Your task to perform on an android device: refresh tabs in the chrome app Image 0: 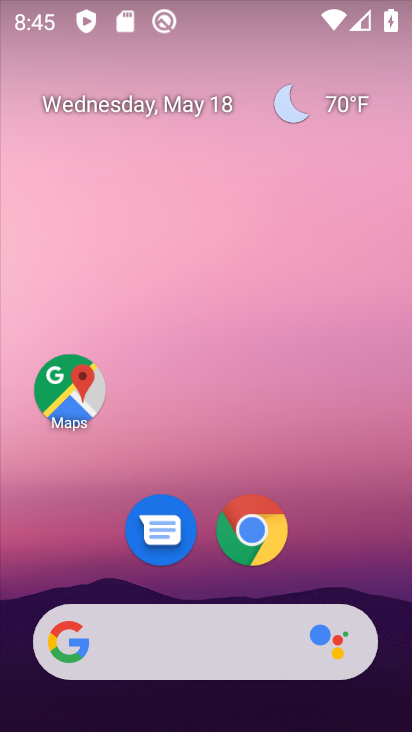
Step 0: click (252, 532)
Your task to perform on an android device: refresh tabs in the chrome app Image 1: 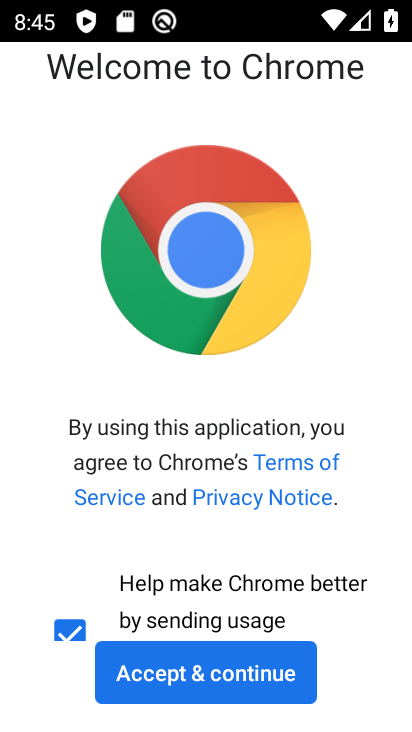
Step 1: click (233, 666)
Your task to perform on an android device: refresh tabs in the chrome app Image 2: 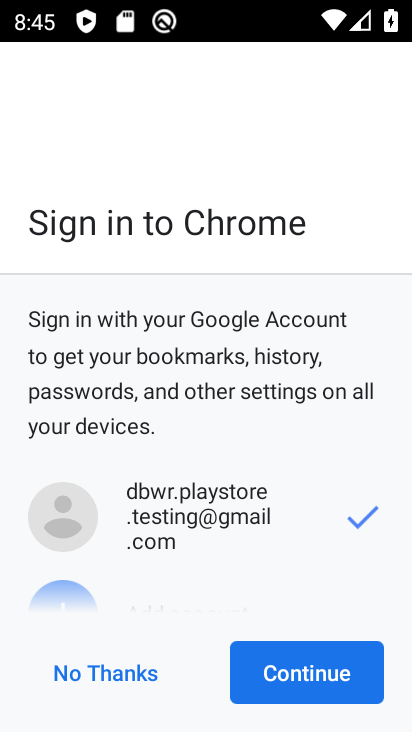
Step 2: click (264, 668)
Your task to perform on an android device: refresh tabs in the chrome app Image 3: 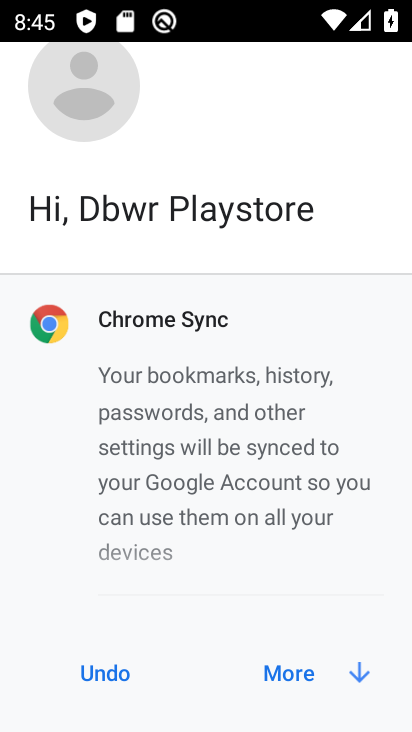
Step 3: click (291, 679)
Your task to perform on an android device: refresh tabs in the chrome app Image 4: 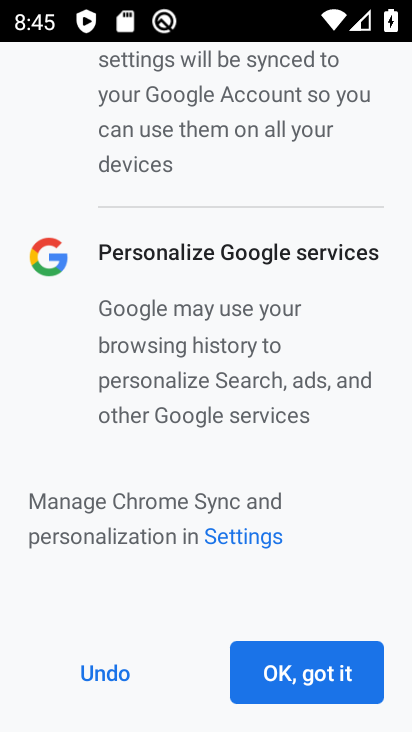
Step 4: click (300, 675)
Your task to perform on an android device: refresh tabs in the chrome app Image 5: 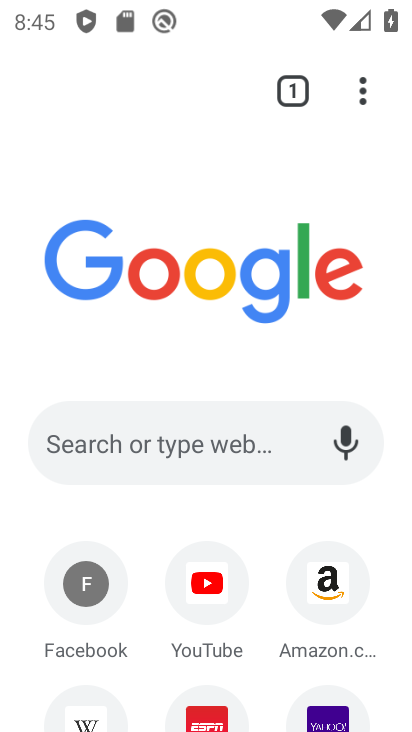
Step 5: click (361, 95)
Your task to perform on an android device: refresh tabs in the chrome app Image 6: 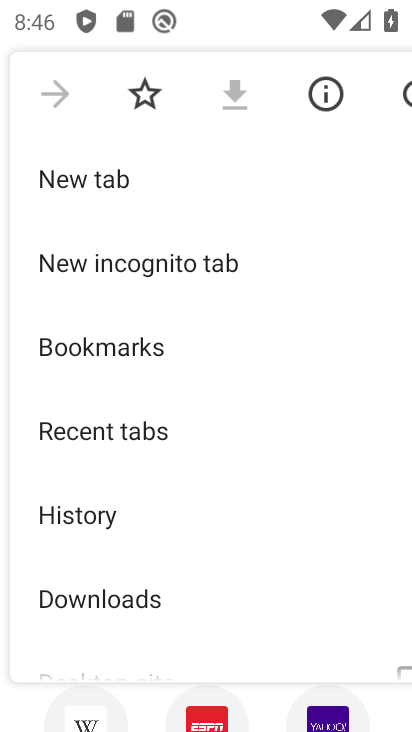
Step 6: click (410, 92)
Your task to perform on an android device: refresh tabs in the chrome app Image 7: 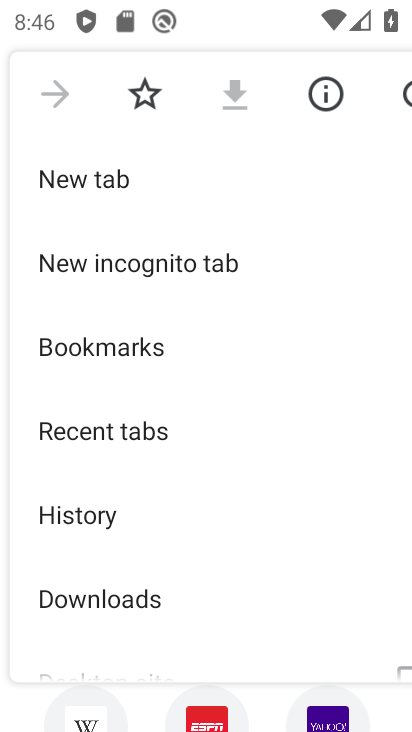
Step 7: click (410, 92)
Your task to perform on an android device: refresh tabs in the chrome app Image 8: 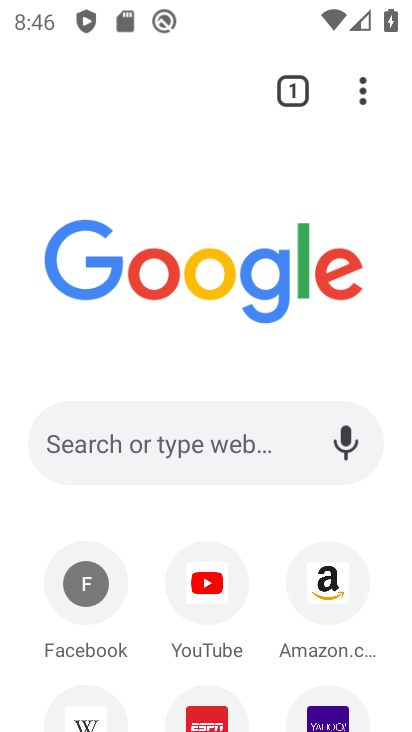
Step 8: task complete